Your task to perform on an android device: Go to CNN.com Image 0: 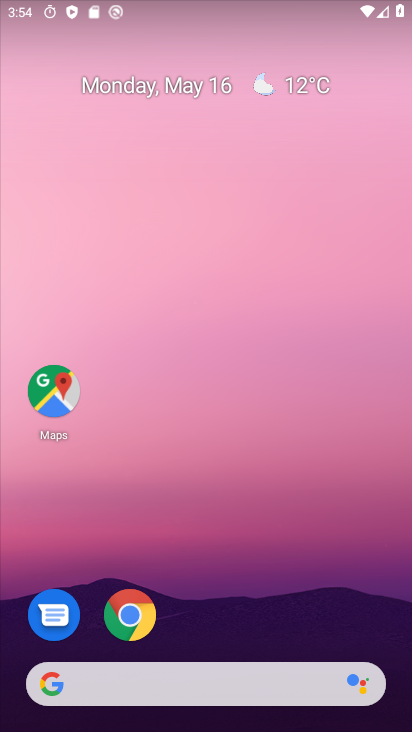
Step 0: drag from (354, 710) to (2, 606)
Your task to perform on an android device: Go to CNN.com Image 1: 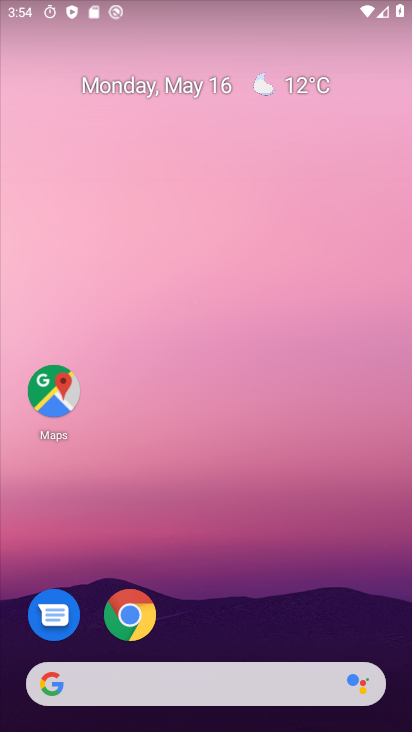
Step 1: drag from (241, 518) to (162, 101)
Your task to perform on an android device: Go to CNN.com Image 2: 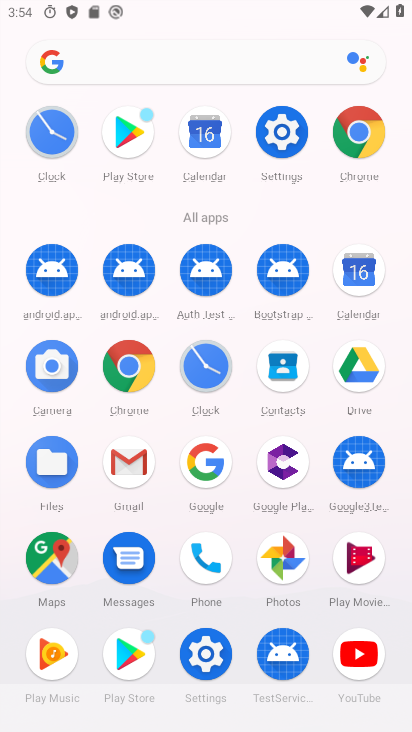
Step 2: click (347, 138)
Your task to perform on an android device: Go to CNN.com Image 3: 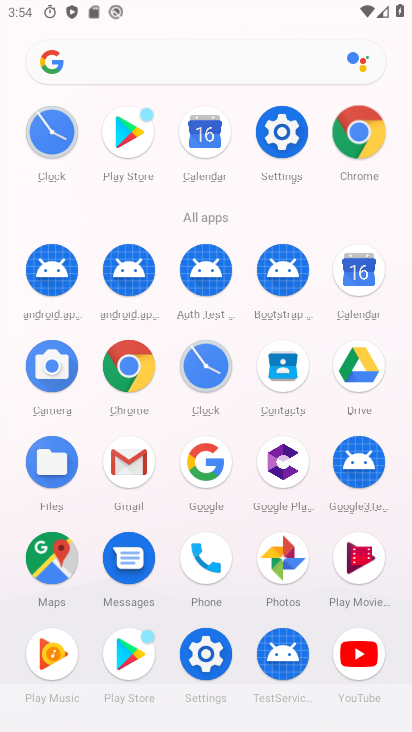
Step 3: click (348, 139)
Your task to perform on an android device: Go to CNN.com Image 4: 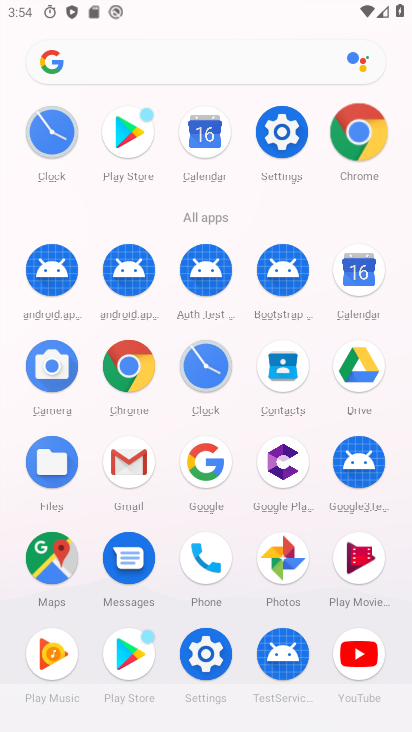
Step 4: click (348, 139)
Your task to perform on an android device: Go to CNN.com Image 5: 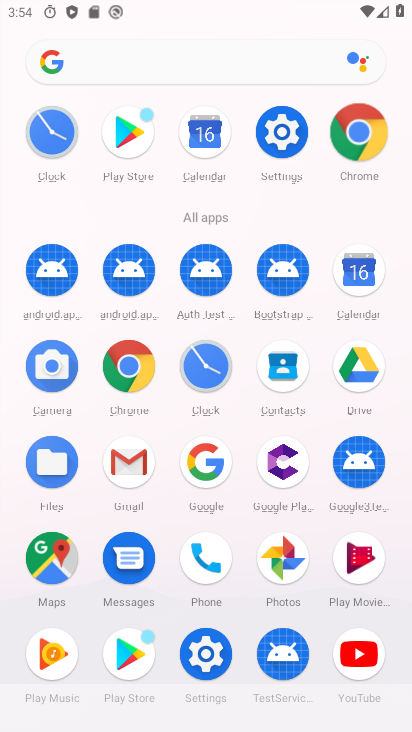
Step 5: click (353, 143)
Your task to perform on an android device: Go to CNN.com Image 6: 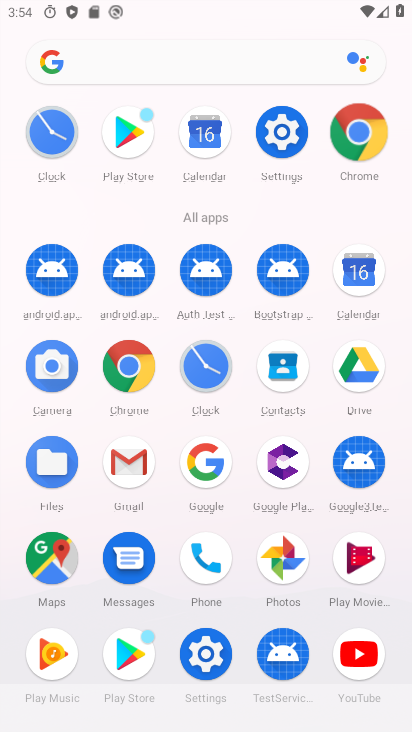
Step 6: click (354, 143)
Your task to perform on an android device: Go to CNN.com Image 7: 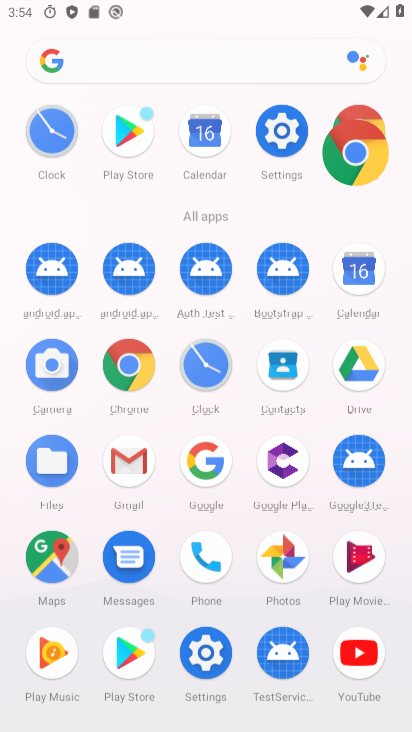
Step 7: click (356, 142)
Your task to perform on an android device: Go to CNN.com Image 8: 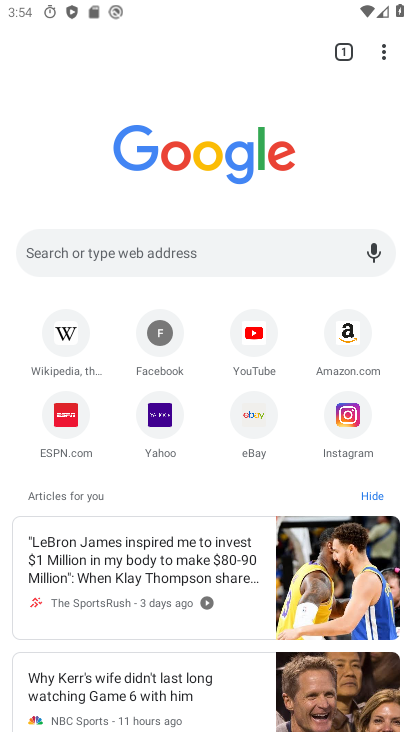
Step 8: click (356, 141)
Your task to perform on an android device: Go to CNN.com Image 9: 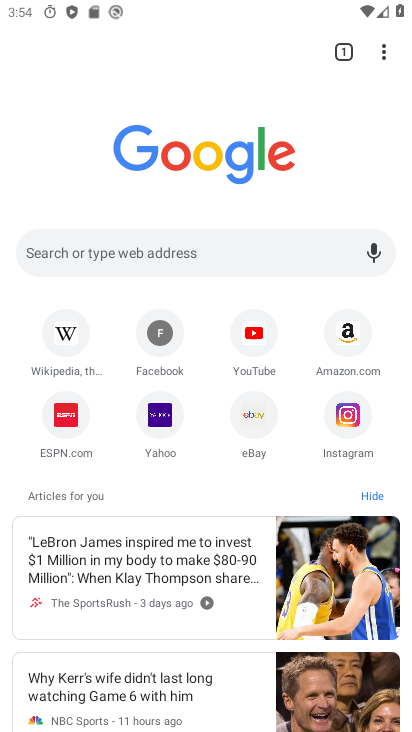
Step 9: click (51, 256)
Your task to perform on an android device: Go to CNN.com Image 10: 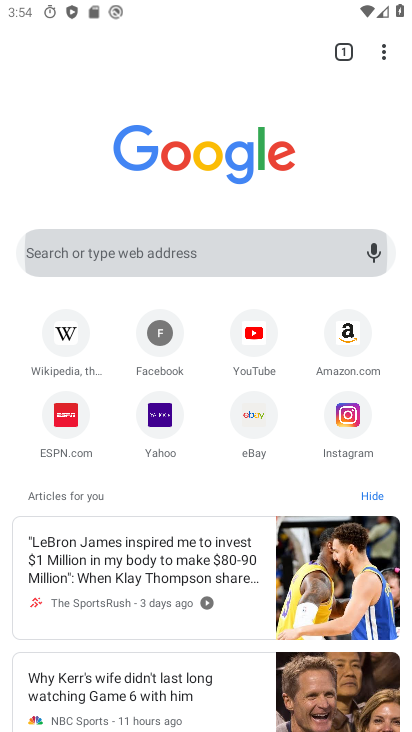
Step 10: click (51, 256)
Your task to perform on an android device: Go to CNN.com Image 11: 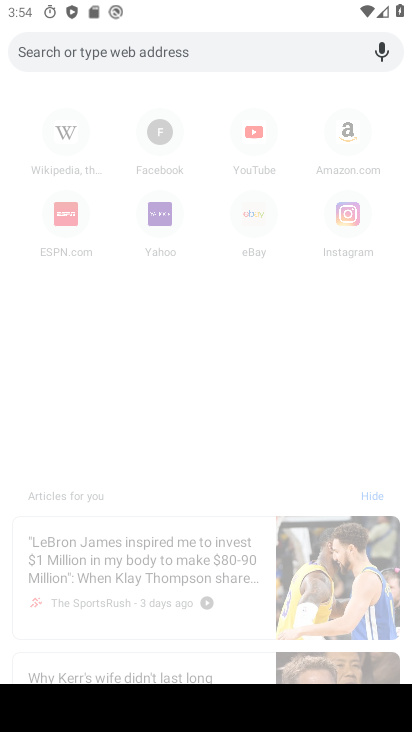
Step 11: type "cnn.com"
Your task to perform on an android device: Go to CNN.com Image 12: 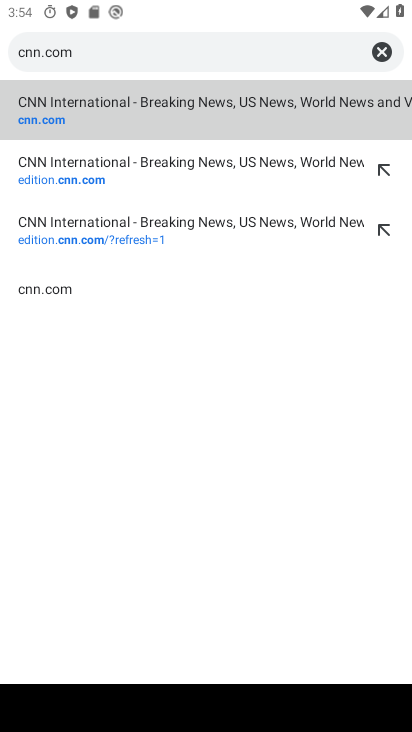
Step 12: click (52, 115)
Your task to perform on an android device: Go to CNN.com Image 13: 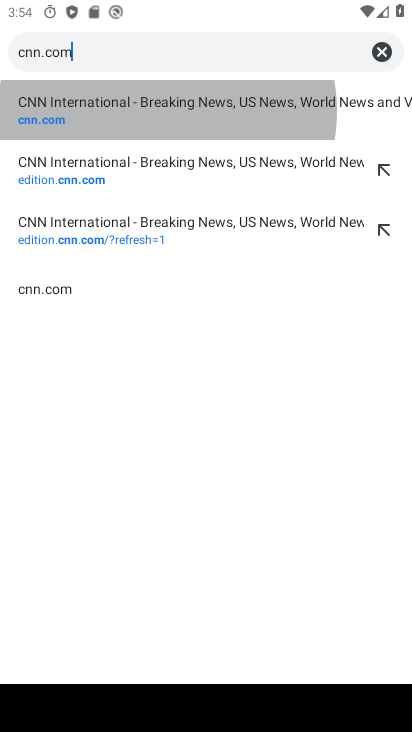
Step 13: click (51, 114)
Your task to perform on an android device: Go to CNN.com Image 14: 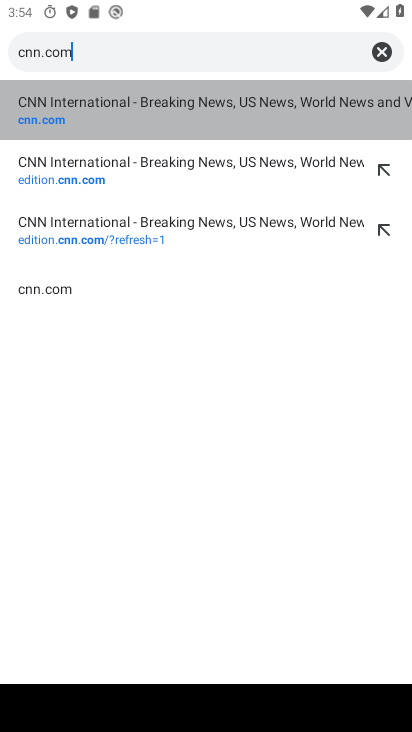
Step 14: click (52, 110)
Your task to perform on an android device: Go to CNN.com Image 15: 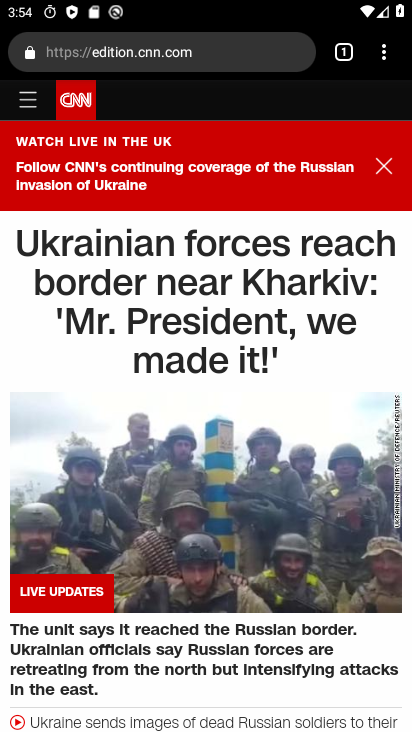
Step 15: task complete